Your task to perform on an android device: Open the Play Movies app and select the watchlist tab. Image 0: 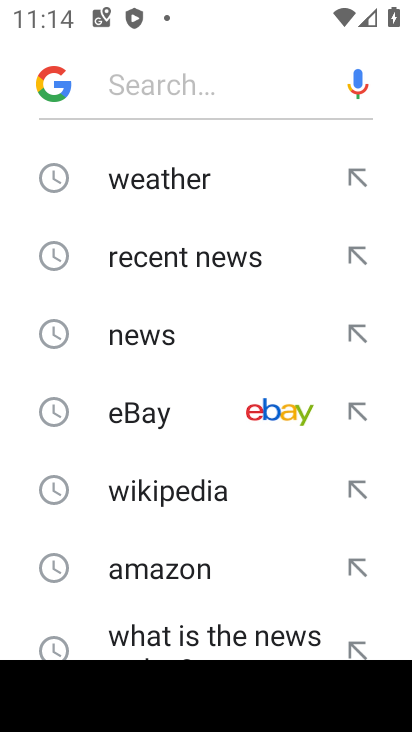
Step 0: press home button
Your task to perform on an android device: Open the Play Movies app and select the watchlist tab. Image 1: 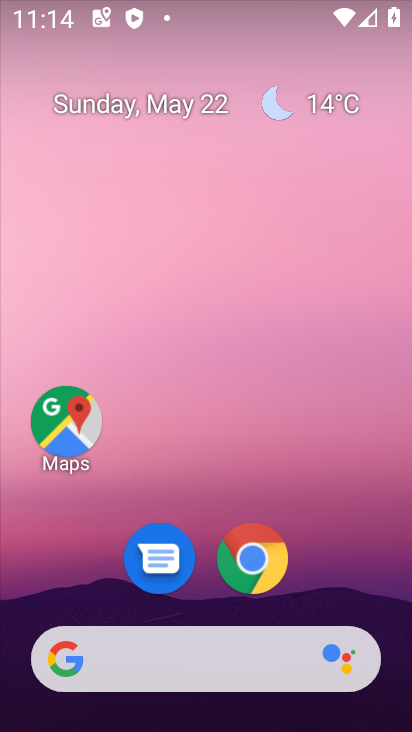
Step 1: drag from (325, 600) to (285, 71)
Your task to perform on an android device: Open the Play Movies app and select the watchlist tab. Image 2: 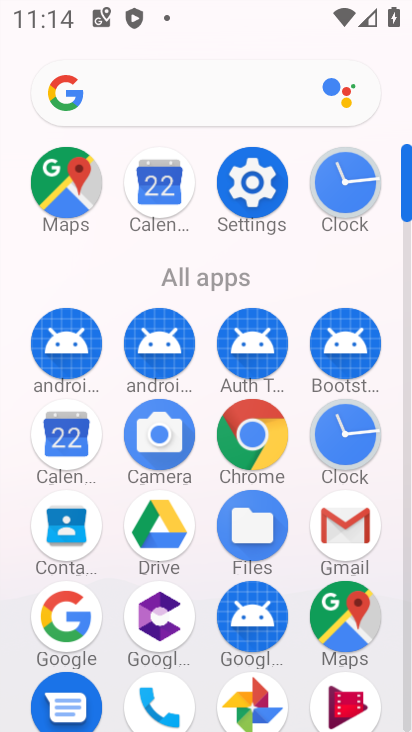
Step 2: click (345, 694)
Your task to perform on an android device: Open the Play Movies app and select the watchlist tab. Image 3: 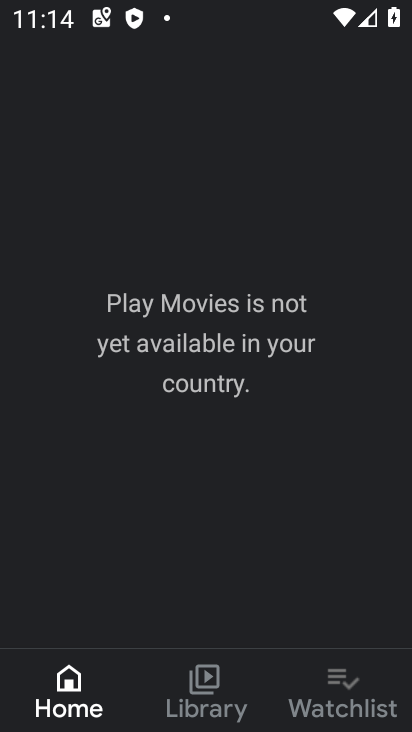
Step 3: click (346, 694)
Your task to perform on an android device: Open the Play Movies app and select the watchlist tab. Image 4: 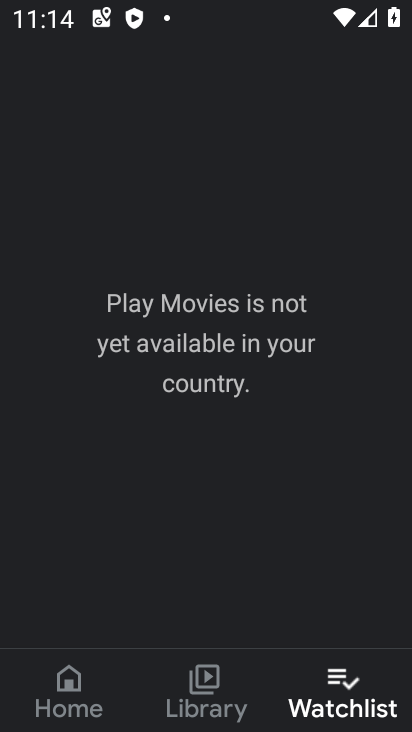
Step 4: task complete